Your task to perform on an android device: Clear all items from cart on newegg. Search for usb-c on newegg, select the first entry, add it to the cart, then select checkout. Image 0: 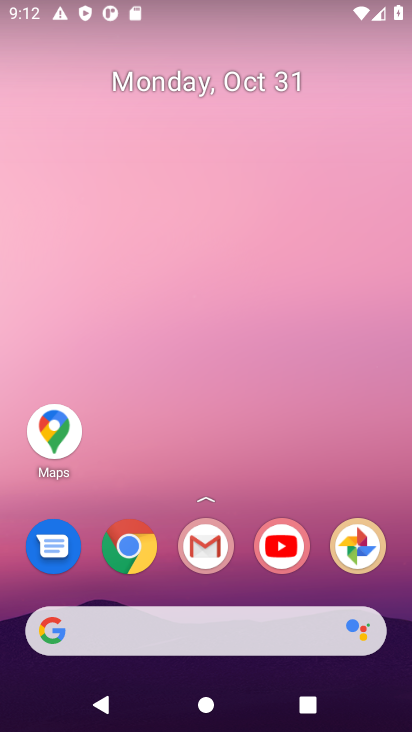
Step 0: click (125, 556)
Your task to perform on an android device: Clear all items from cart on newegg. Search for usb-c on newegg, select the first entry, add it to the cart, then select checkout. Image 1: 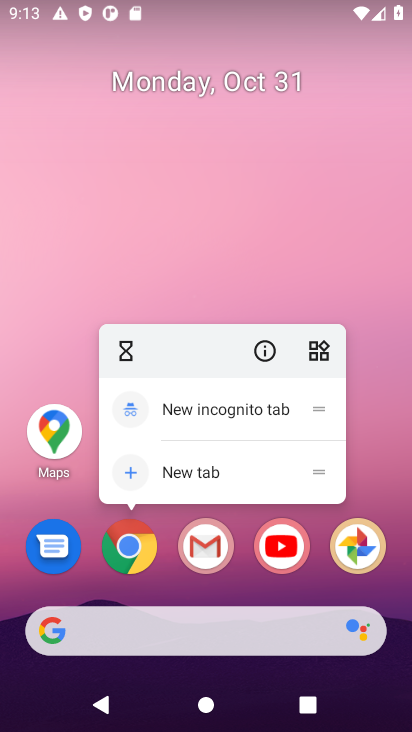
Step 1: click (131, 553)
Your task to perform on an android device: Clear all items from cart on newegg. Search for usb-c on newegg, select the first entry, add it to the cart, then select checkout. Image 2: 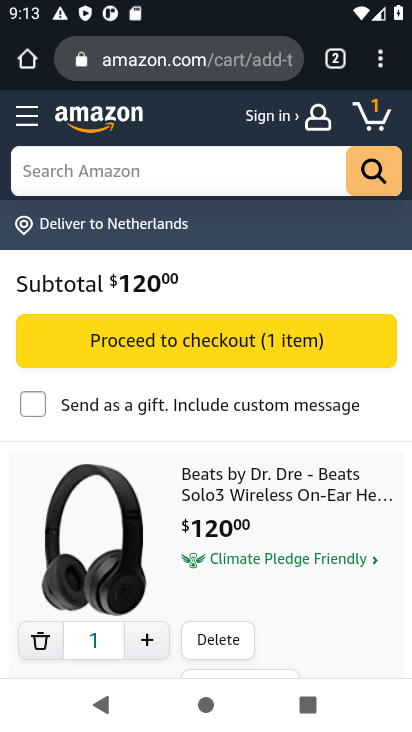
Step 2: click (202, 64)
Your task to perform on an android device: Clear all items from cart on newegg. Search for usb-c on newegg, select the first entry, add it to the cart, then select checkout. Image 3: 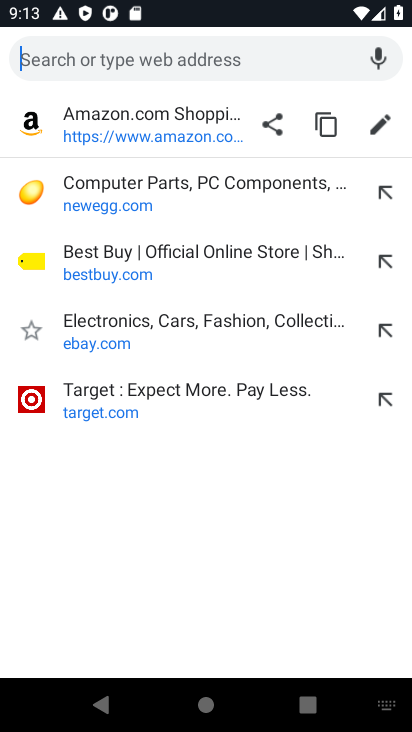
Step 3: type "newegg"
Your task to perform on an android device: Clear all items from cart on newegg. Search for usb-c on newegg, select the first entry, add it to the cart, then select checkout. Image 4: 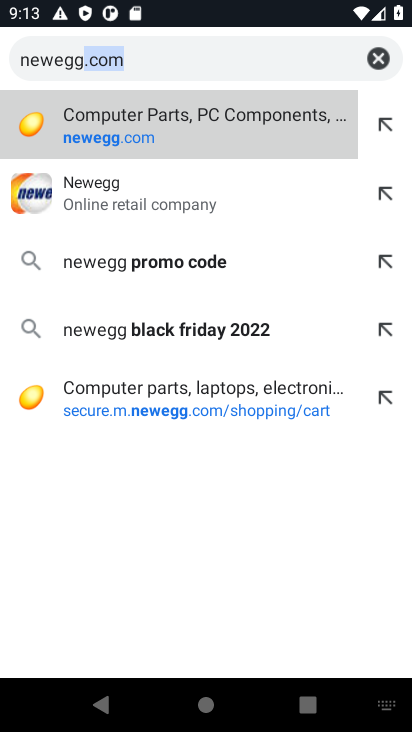
Step 4: press enter
Your task to perform on an android device: Clear all items from cart on newegg. Search for usb-c on newegg, select the first entry, add it to the cart, then select checkout. Image 5: 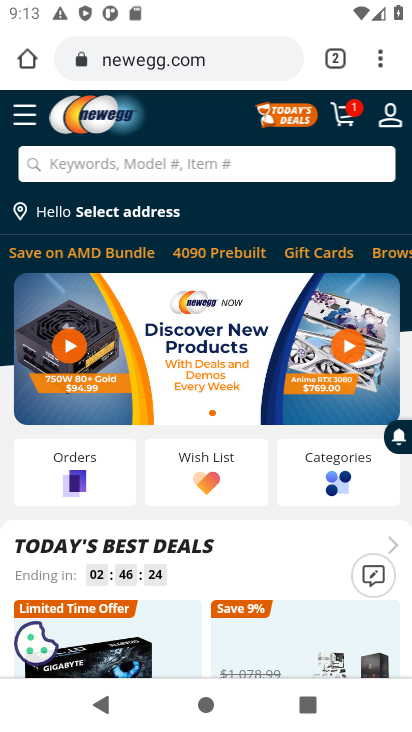
Step 5: drag from (192, 584) to (183, 367)
Your task to perform on an android device: Clear all items from cart on newegg. Search for usb-c on newegg, select the first entry, add it to the cart, then select checkout. Image 6: 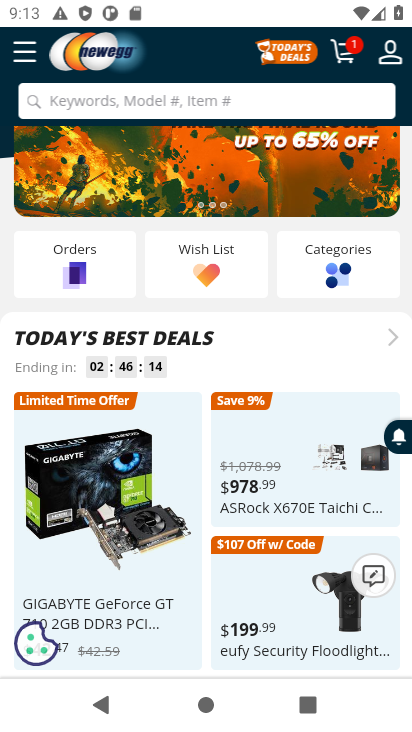
Step 6: drag from (281, 408) to (293, 236)
Your task to perform on an android device: Clear all items from cart on newegg. Search for usb-c on newegg, select the first entry, add it to the cart, then select checkout. Image 7: 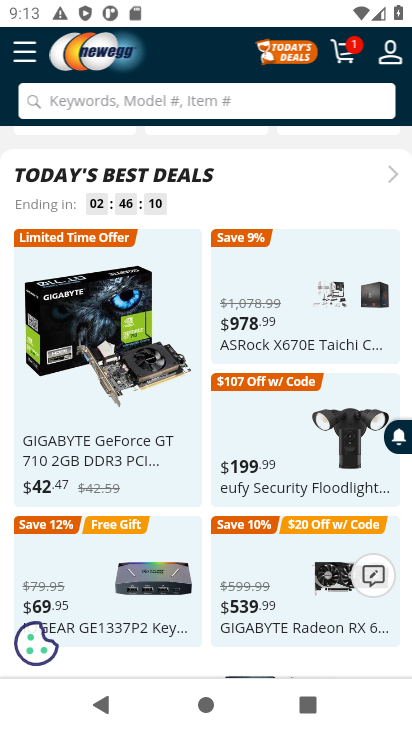
Step 7: click (337, 67)
Your task to perform on an android device: Clear all items from cart on newegg. Search for usb-c on newegg, select the first entry, add it to the cart, then select checkout. Image 8: 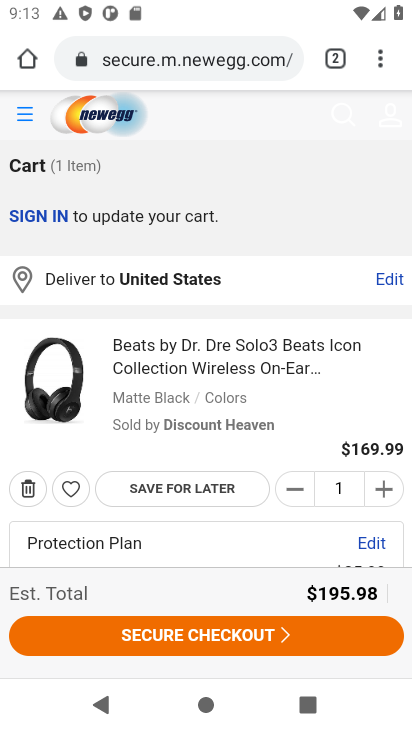
Step 8: click (305, 492)
Your task to perform on an android device: Clear all items from cart on newegg. Search for usb-c on newegg, select the first entry, add it to the cart, then select checkout. Image 9: 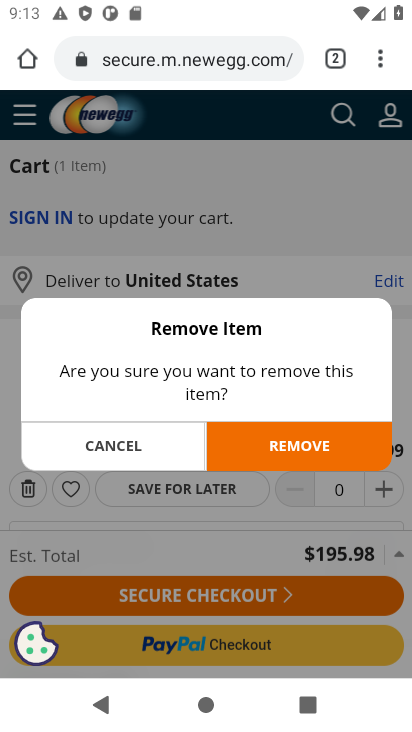
Step 9: click (307, 450)
Your task to perform on an android device: Clear all items from cart on newegg. Search for usb-c on newegg, select the first entry, add it to the cart, then select checkout. Image 10: 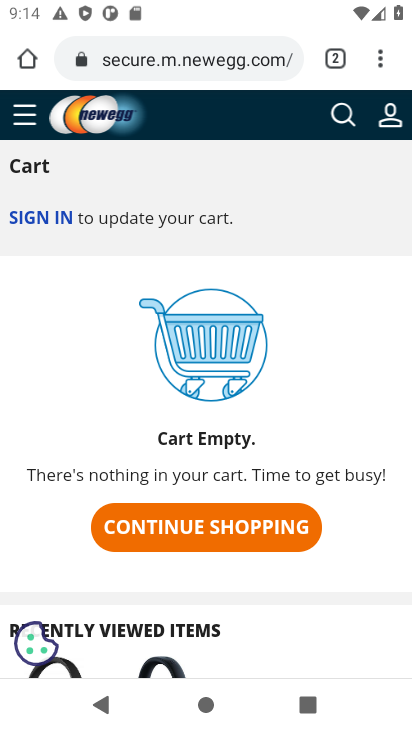
Step 10: click (347, 117)
Your task to perform on an android device: Clear all items from cart on newegg. Search for usb-c on newegg, select the first entry, add it to the cart, then select checkout. Image 11: 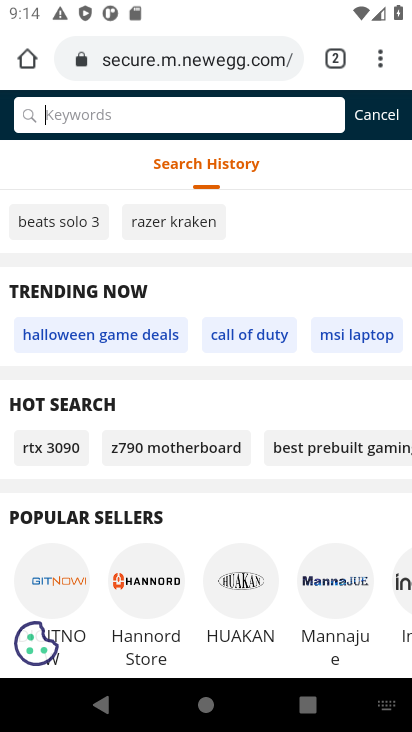
Step 11: type "usb-c"
Your task to perform on an android device: Clear all items from cart on newegg. Search for usb-c on newegg, select the first entry, add it to the cart, then select checkout. Image 12: 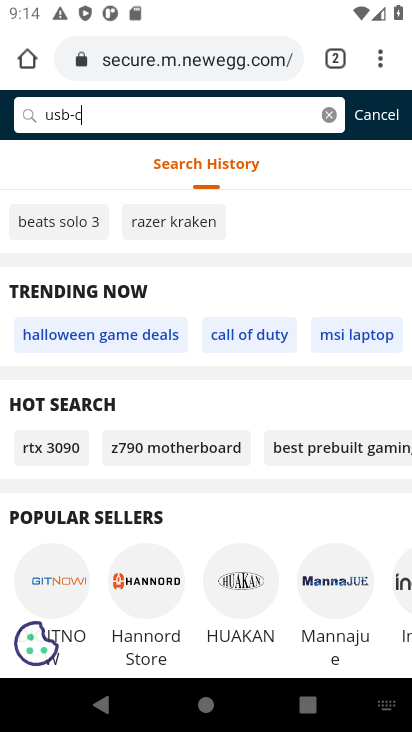
Step 12: press enter
Your task to perform on an android device: Clear all items from cart on newegg. Search for usb-c on newegg, select the first entry, add it to the cart, then select checkout. Image 13: 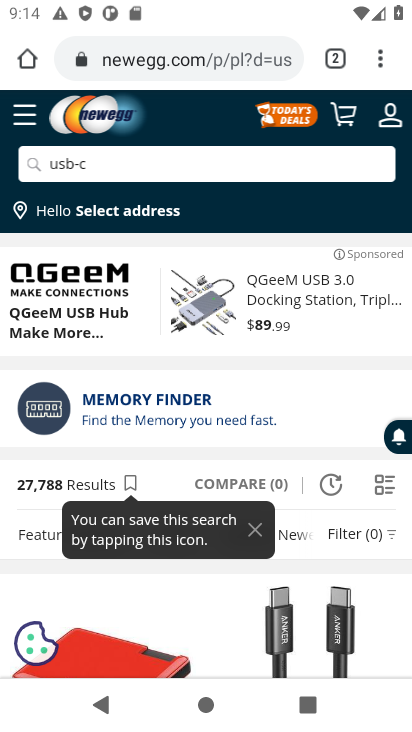
Step 13: drag from (206, 505) to (242, 297)
Your task to perform on an android device: Clear all items from cart on newegg. Search for usb-c on newegg, select the first entry, add it to the cart, then select checkout. Image 14: 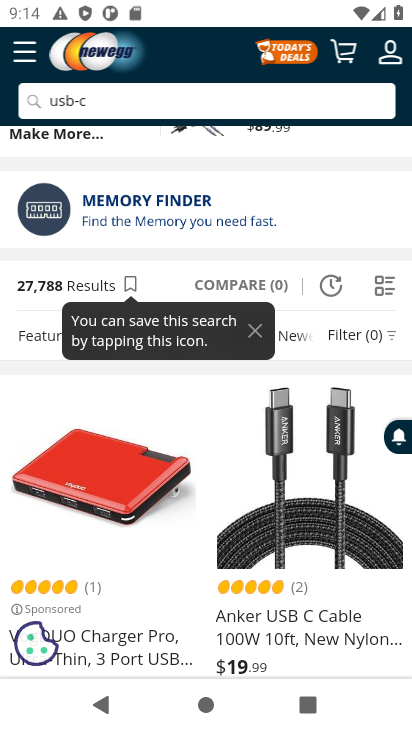
Step 14: drag from (213, 524) to (215, 403)
Your task to perform on an android device: Clear all items from cart on newegg. Search for usb-c on newegg, select the first entry, add it to the cart, then select checkout. Image 15: 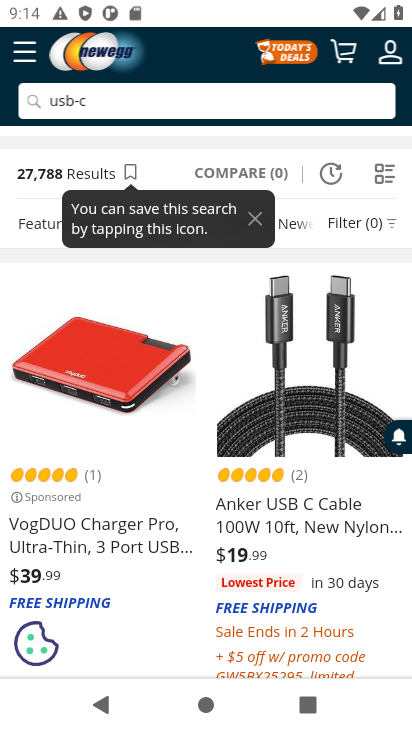
Step 15: drag from (162, 561) to (175, 439)
Your task to perform on an android device: Clear all items from cart on newegg. Search for usb-c on newegg, select the first entry, add it to the cart, then select checkout. Image 16: 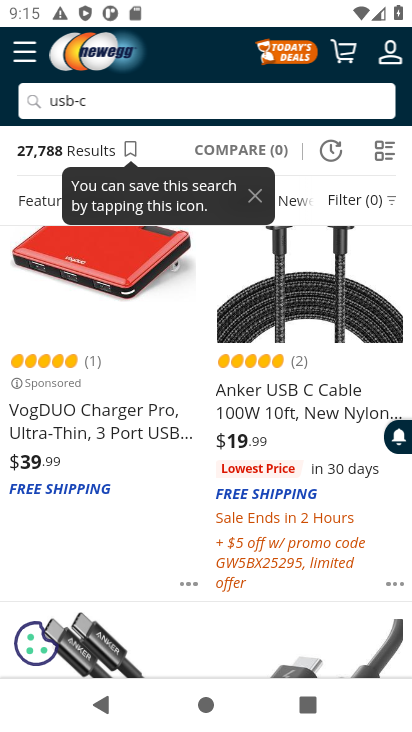
Step 16: drag from (121, 458) to (119, 605)
Your task to perform on an android device: Clear all items from cart on newegg. Search for usb-c on newegg, select the first entry, add it to the cart, then select checkout. Image 17: 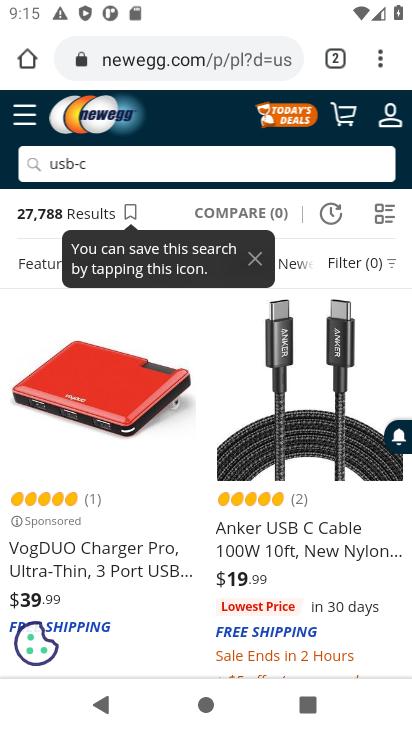
Step 17: click (126, 511)
Your task to perform on an android device: Clear all items from cart on newegg. Search for usb-c on newegg, select the first entry, add it to the cart, then select checkout. Image 18: 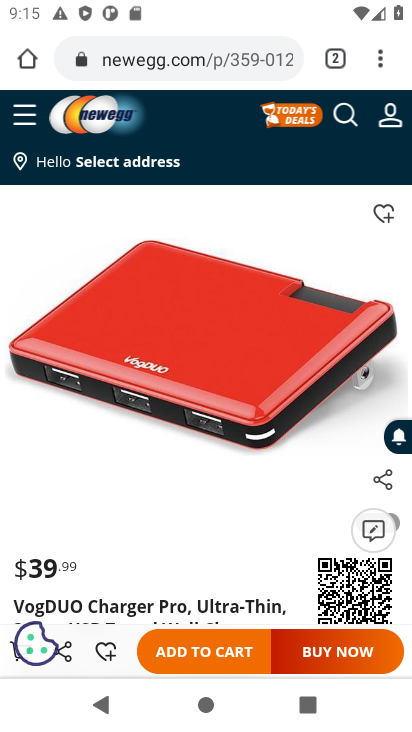
Step 18: click (197, 645)
Your task to perform on an android device: Clear all items from cart on newegg. Search for usb-c on newegg, select the first entry, add it to the cart, then select checkout. Image 19: 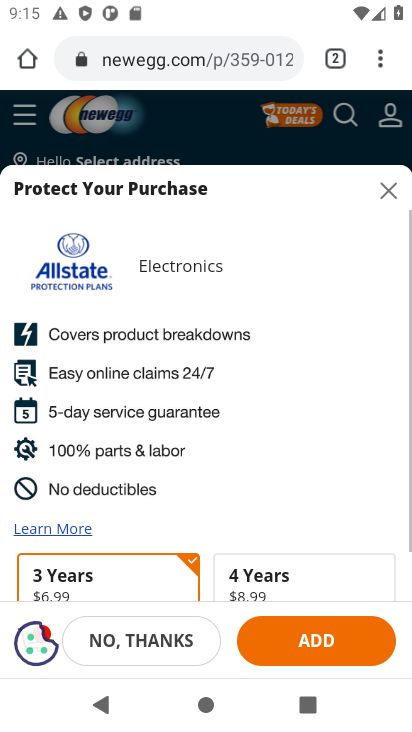
Step 19: click (302, 639)
Your task to perform on an android device: Clear all items from cart on newegg. Search for usb-c on newegg, select the first entry, add it to the cart, then select checkout. Image 20: 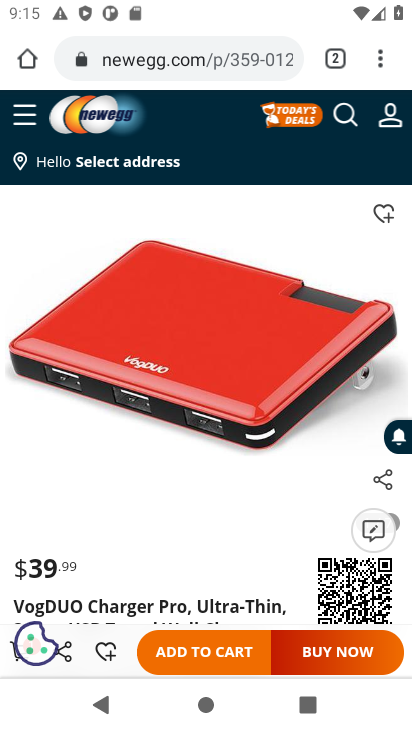
Step 20: click (25, 122)
Your task to perform on an android device: Clear all items from cart on newegg. Search for usb-c on newegg, select the first entry, add it to the cart, then select checkout. Image 21: 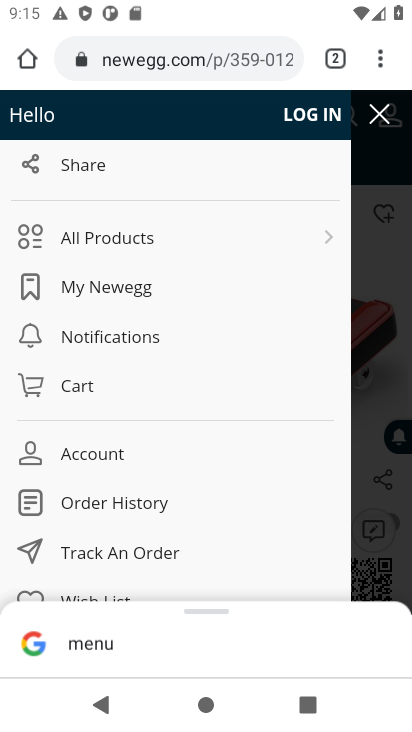
Step 21: click (67, 388)
Your task to perform on an android device: Clear all items from cart on newegg. Search for usb-c on newegg, select the first entry, add it to the cart, then select checkout. Image 22: 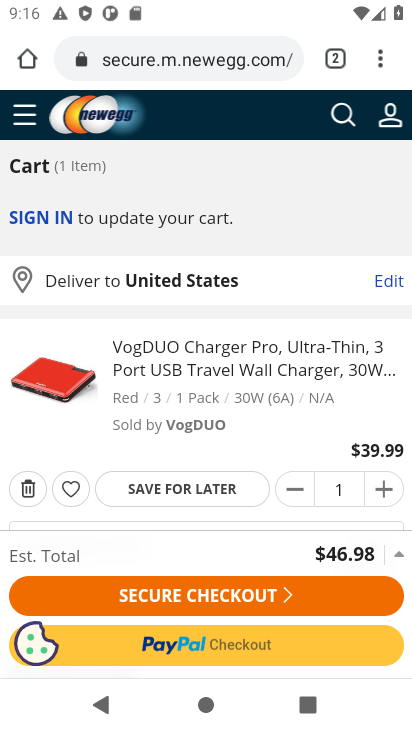
Step 22: click (227, 594)
Your task to perform on an android device: Clear all items from cart on newegg. Search for usb-c on newegg, select the first entry, add it to the cart, then select checkout. Image 23: 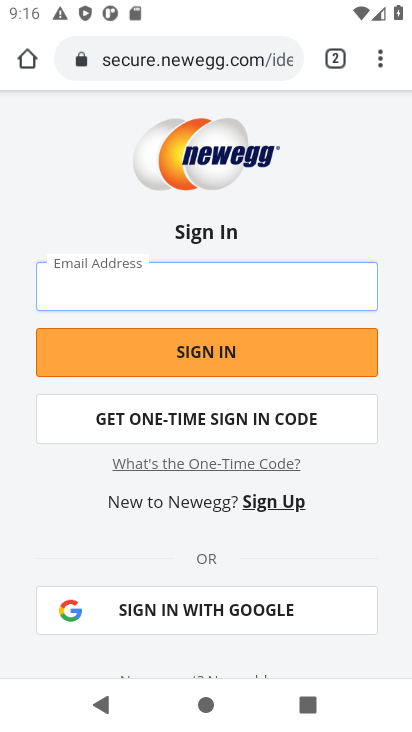
Step 23: task complete